Your task to perform on an android device: Is it going to rain tomorrow? Image 0: 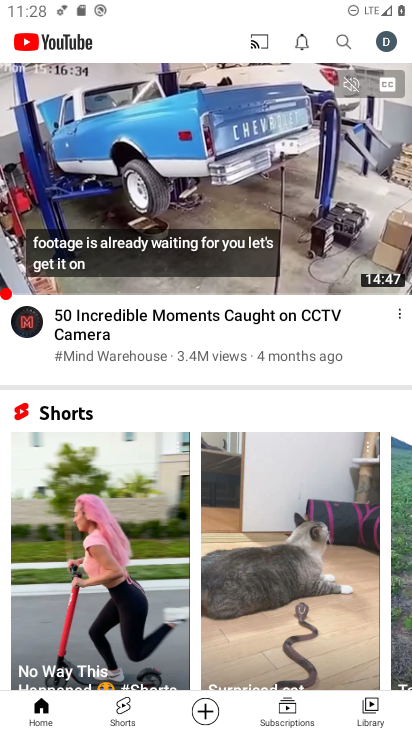
Step 0: press home button
Your task to perform on an android device: Is it going to rain tomorrow? Image 1: 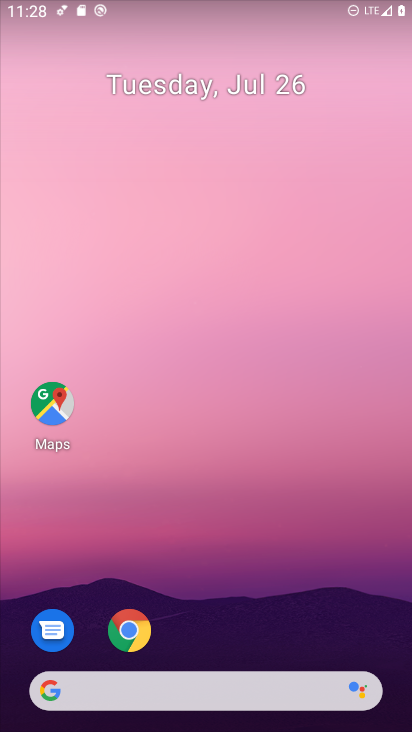
Step 1: click (165, 686)
Your task to perform on an android device: Is it going to rain tomorrow? Image 2: 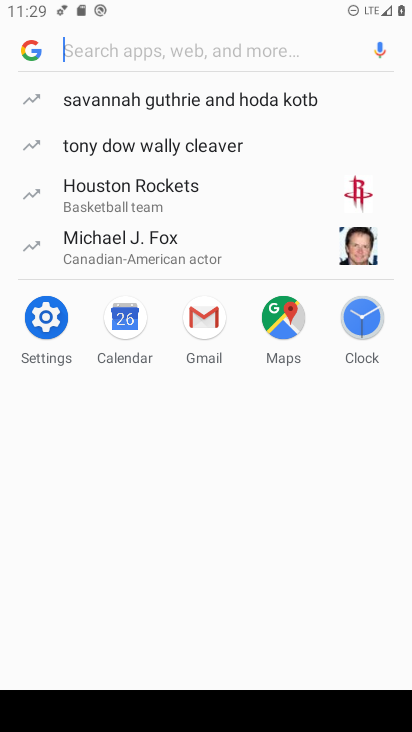
Step 2: type "weather"
Your task to perform on an android device: Is it going to rain tomorrow? Image 3: 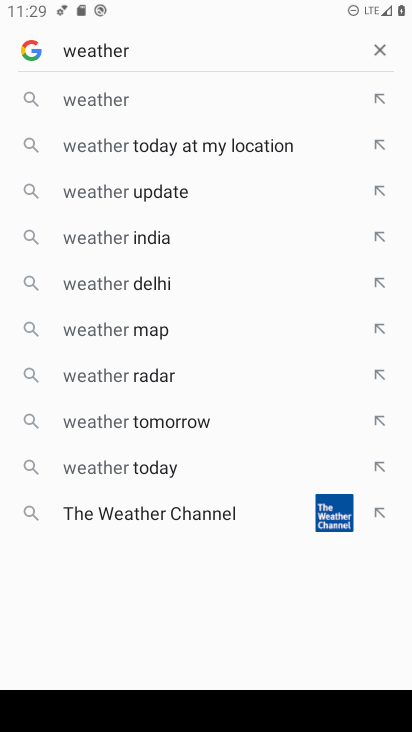
Step 3: click (103, 90)
Your task to perform on an android device: Is it going to rain tomorrow? Image 4: 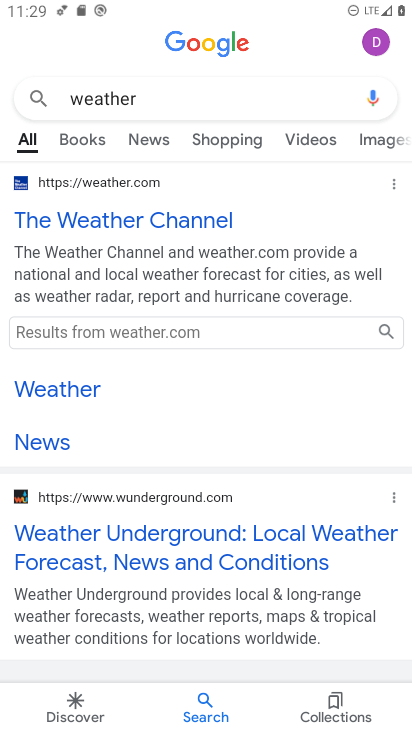
Step 4: task complete